Your task to perform on an android device: allow notifications from all sites in the chrome app Image 0: 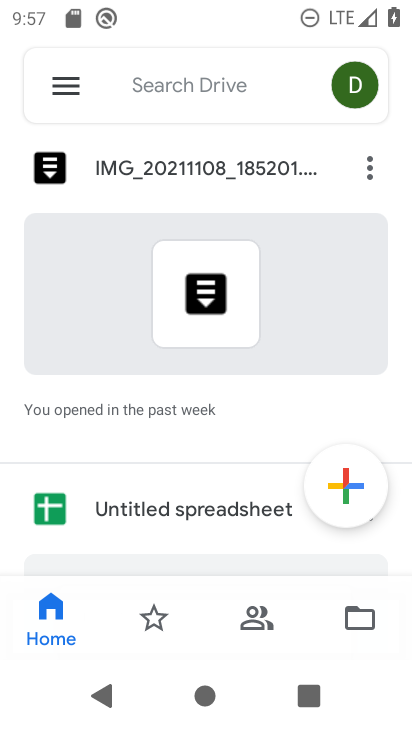
Step 0: press home button
Your task to perform on an android device: allow notifications from all sites in the chrome app Image 1: 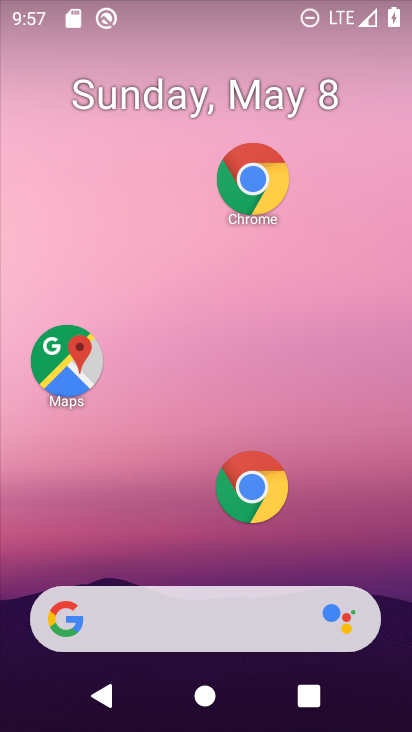
Step 1: click (266, 494)
Your task to perform on an android device: allow notifications from all sites in the chrome app Image 2: 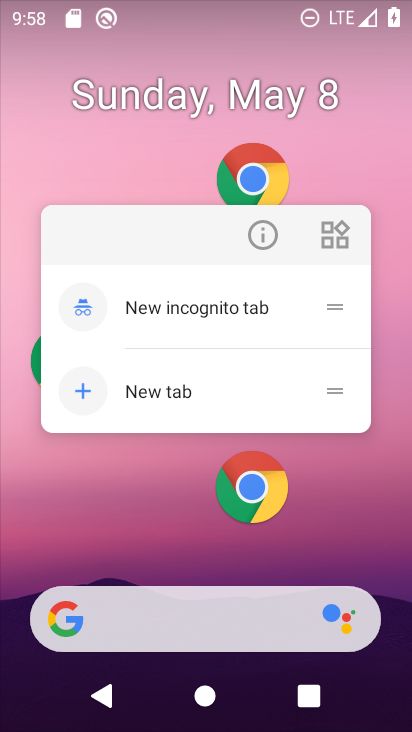
Step 2: click (266, 503)
Your task to perform on an android device: allow notifications from all sites in the chrome app Image 3: 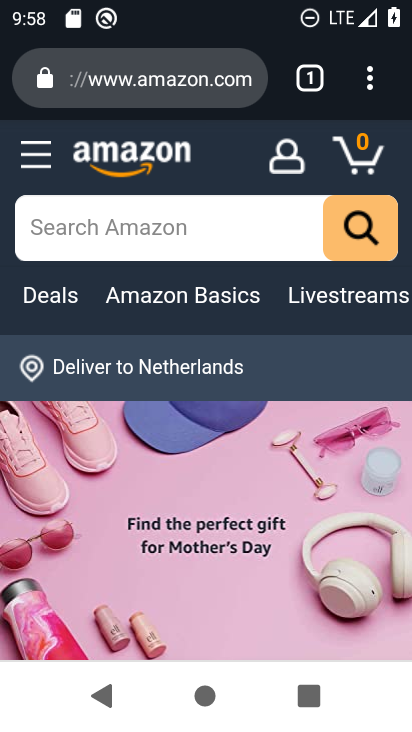
Step 3: click (369, 84)
Your task to perform on an android device: allow notifications from all sites in the chrome app Image 4: 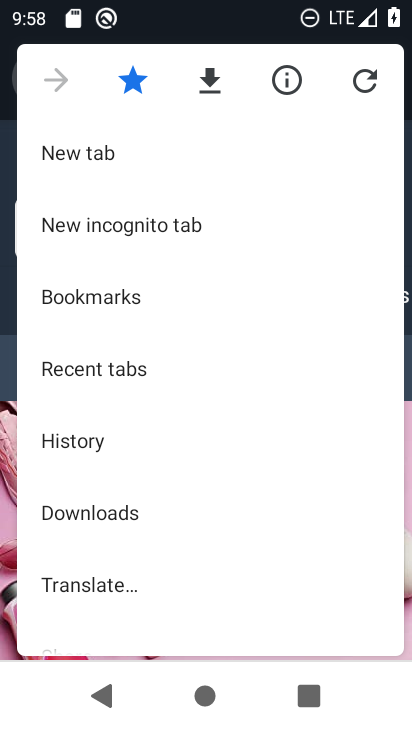
Step 4: drag from (197, 544) to (236, 181)
Your task to perform on an android device: allow notifications from all sites in the chrome app Image 5: 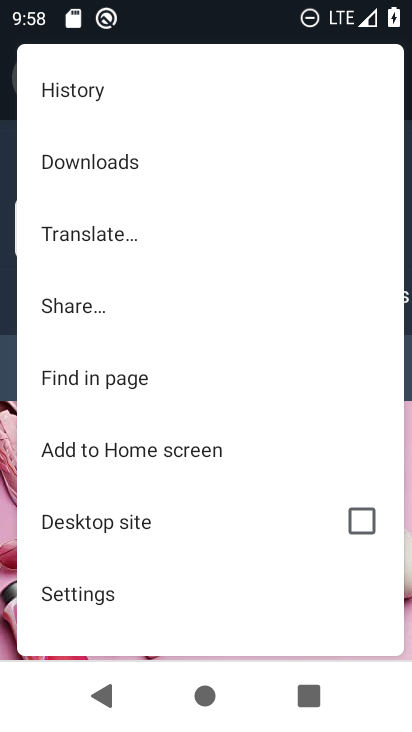
Step 5: click (117, 594)
Your task to perform on an android device: allow notifications from all sites in the chrome app Image 6: 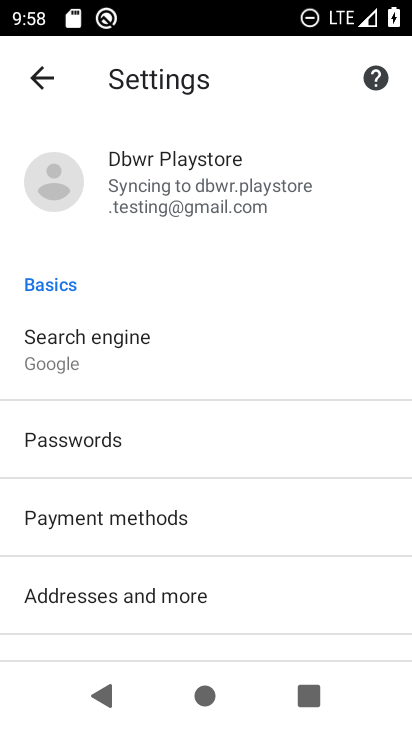
Step 6: drag from (245, 541) to (306, 298)
Your task to perform on an android device: allow notifications from all sites in the chrome app Image 7: 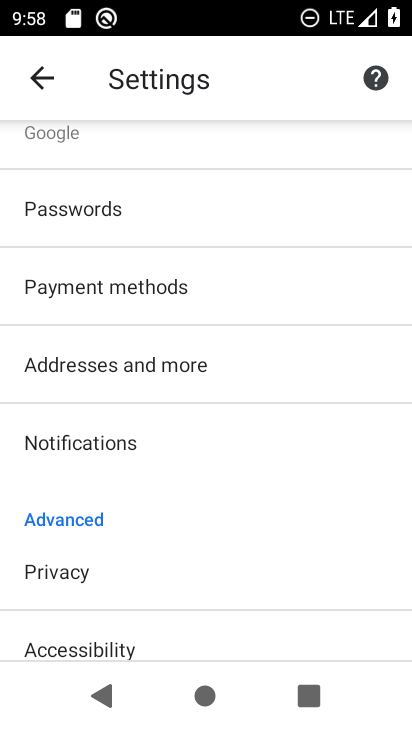
Step 7: click (170, 431)
Your task to perform on an android device: allow notifications from all sites in the chrome app Image 8: 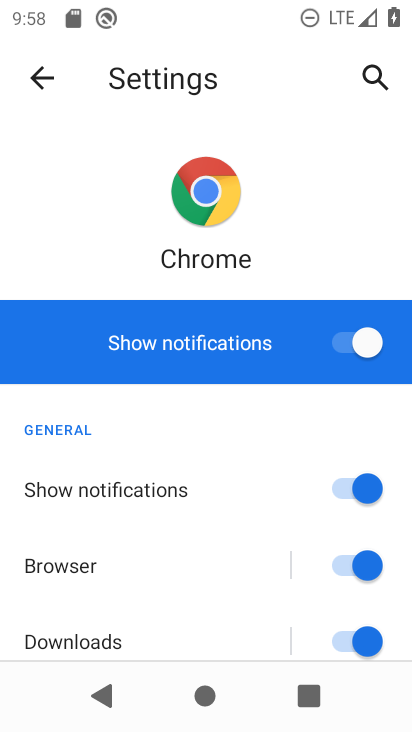
Step 8: task complete